Your task to perform on an android device: Check the weather Image 0: 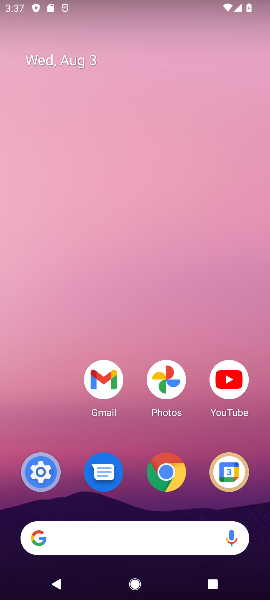
Step 0: click (112, 539)
Your task to perform on an android device: Check the weather Image 1: 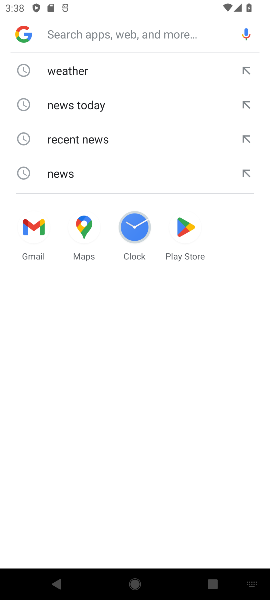
Step 1: click (82, 66)
Your task to perform on an android device: Check the weather Image 2: 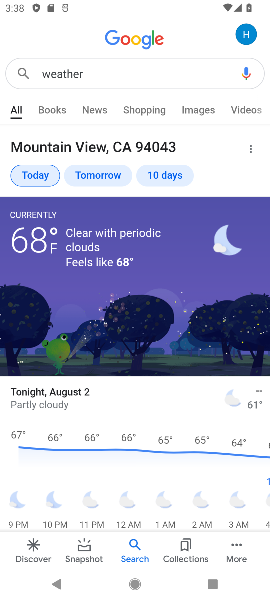
Step 2: click (105, 68)
Your task to perform on an android device: Check the weather Image 3: 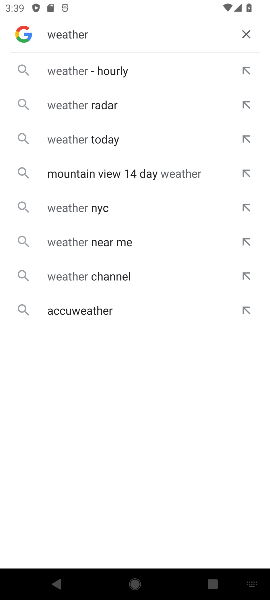
Step 3: click (109, 29)
Your task to perform on an android device: Check the weather Image 4: 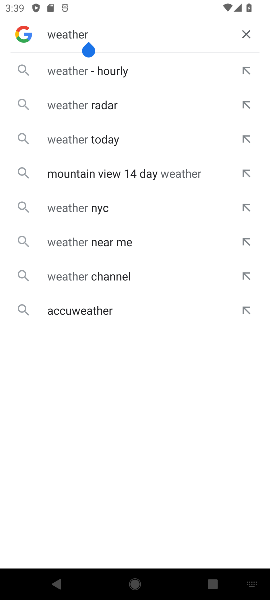
Step 4: click (89, 147)
Your task to perform on an android device: Check the weather Image 5: 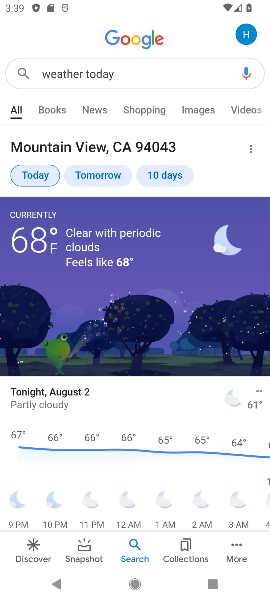
Step 5: task complete